Your task to perform on an android device: toggle priority inbox in the gmail app Image 0: 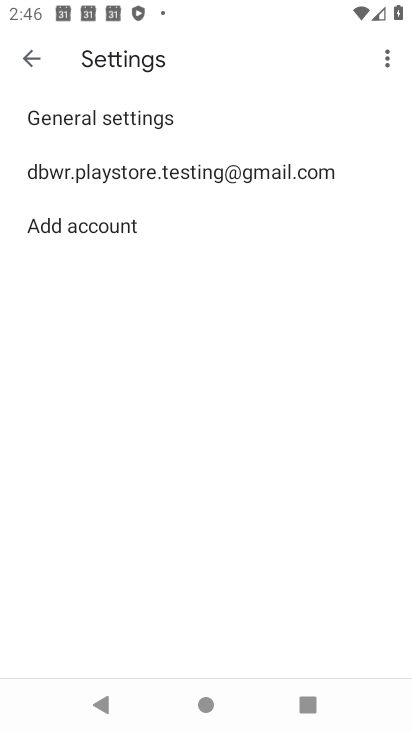
Step 0: press home button
Your task to perform on an android device: toggle priority inbox in the gmail app Image 1: 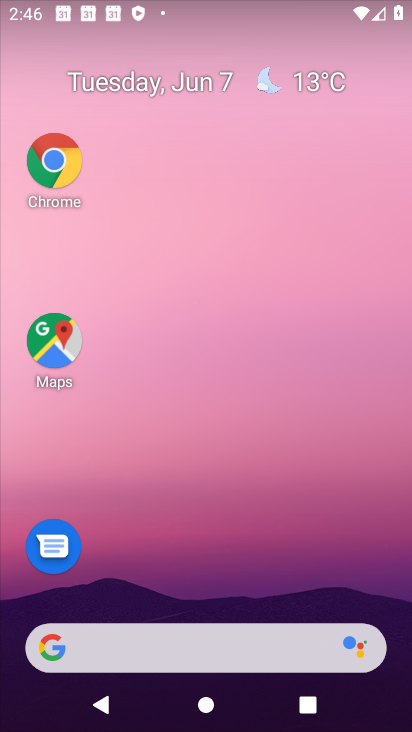
Step 1: drag from (209, 94) to (216, 39)
Your task to perform on an android device: toggle priority inbox in the gmail app Image 2: 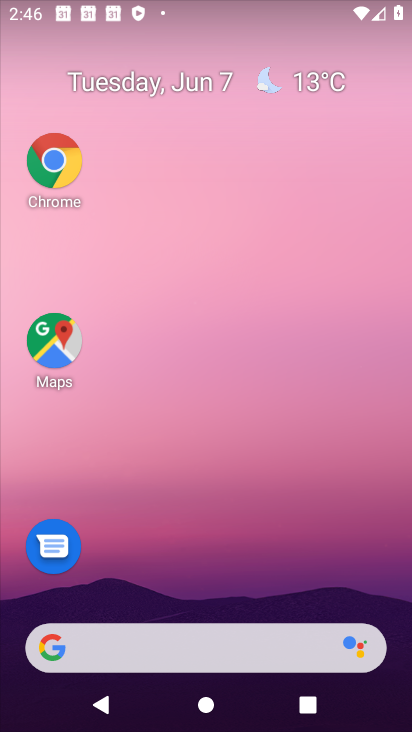
Step 2: drag from (178, 601) to (143, 55)
Your task to perform on an android device: toggle priority inbox in the gmail app Image 3: 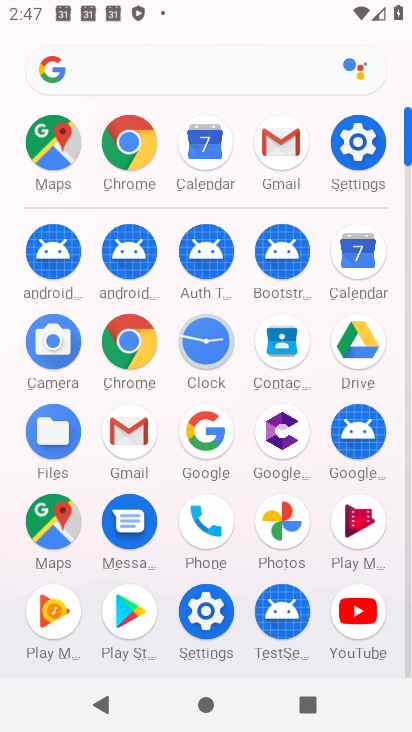
Step 3: click (142, 399)
Your task to perform on an android device: toggle priority inbox in the gmail app Image 4: 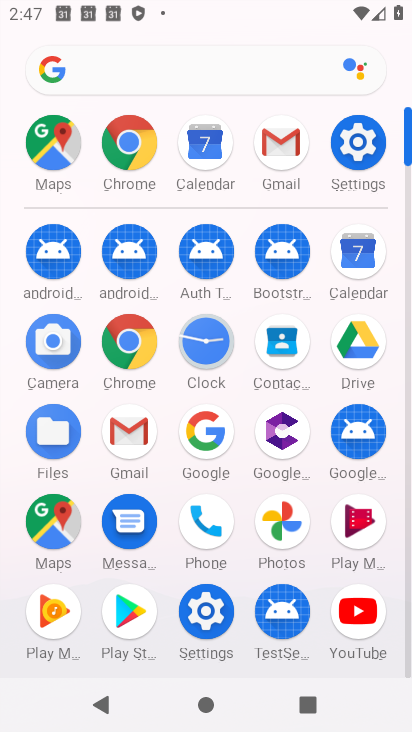
Step 4: click (123, 433)
Your task to perform on an android device: toggle priority inbox in the gmail app Image 5: 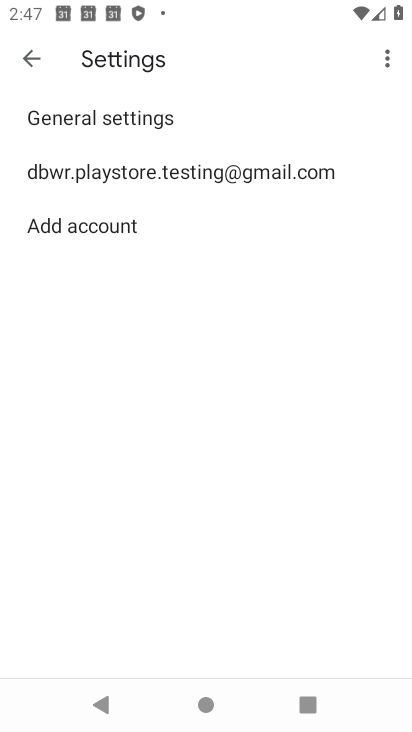
Step 5: click (186, 171)
Your task to perform on an android device: toggle priority inbox in the gmail app Image 6: 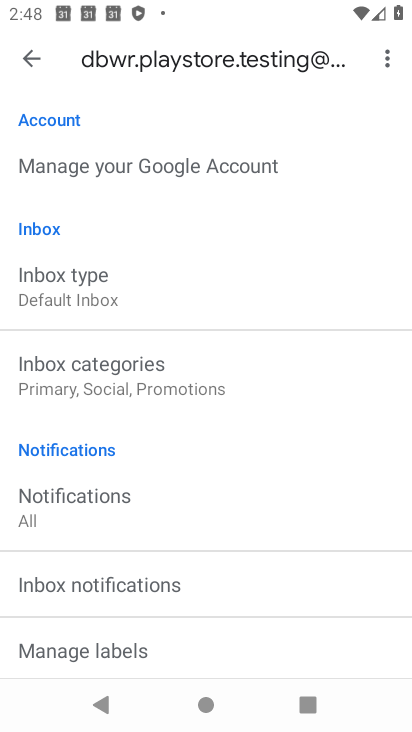
Step 6: click (122, 300)
Your task to perform on an android device: toggle priority inbox in the gmail app Image 7: 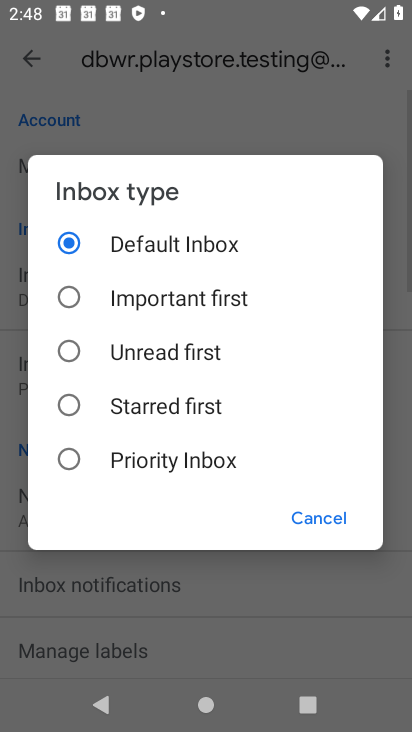
Step 7: click (131, 456)
Your task to perform on an android device: toggle priority inbox in the gmail app Image 8: 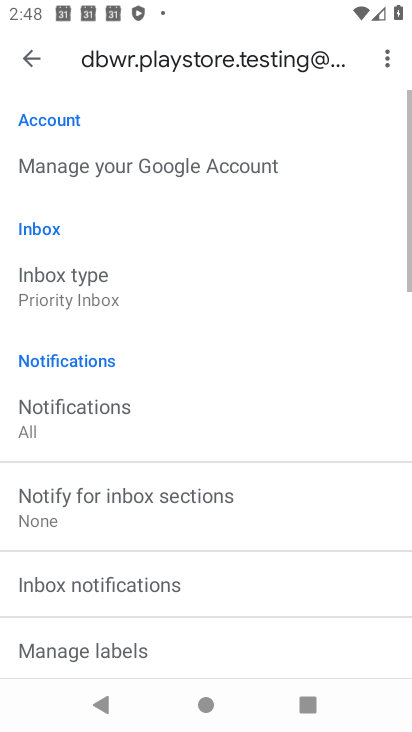
Step 8: task complete